Your task to perform on an android device: add a label to a message in the gmail app Image 0: 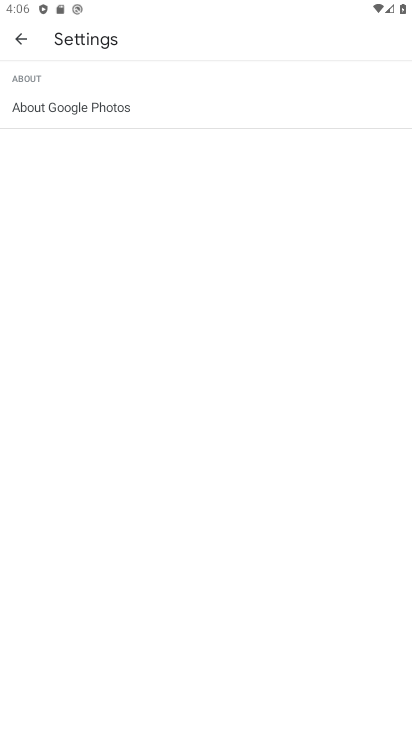
Step 0: press home button
Your task to perform on an android device: add a label to a message in the gmail app Image 1: 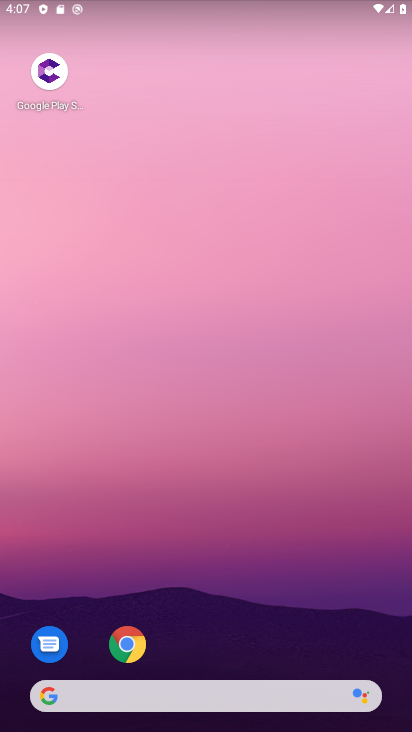
Step 1: drag from (245, 519) to (189, 96)
Your task to perform on an android device: add a label to a message in the gmail app Image 2: 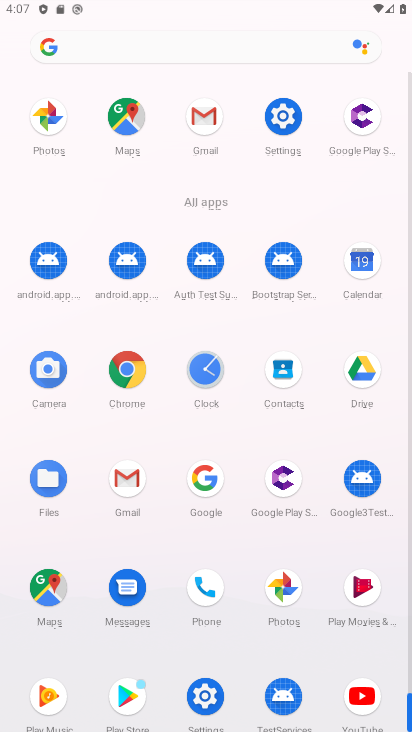
Step 2: click (130, 485)
Your task to perform on an android device: add a label to a message in the gmail app Image 3: 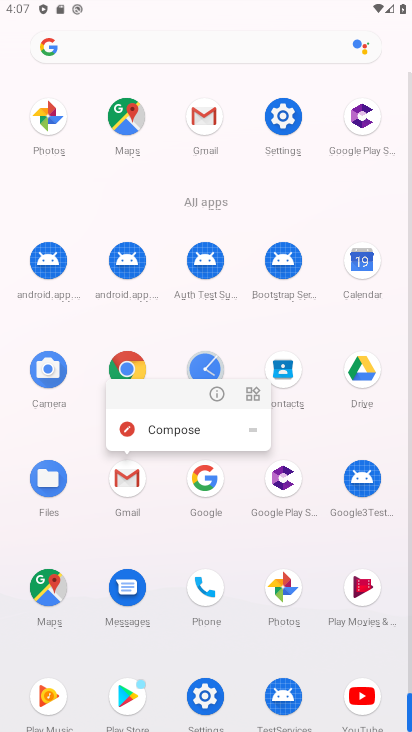
Step 3: click (130, 485)
Your task to perform on an android device: add a label to a message in the gmail app Image 4: 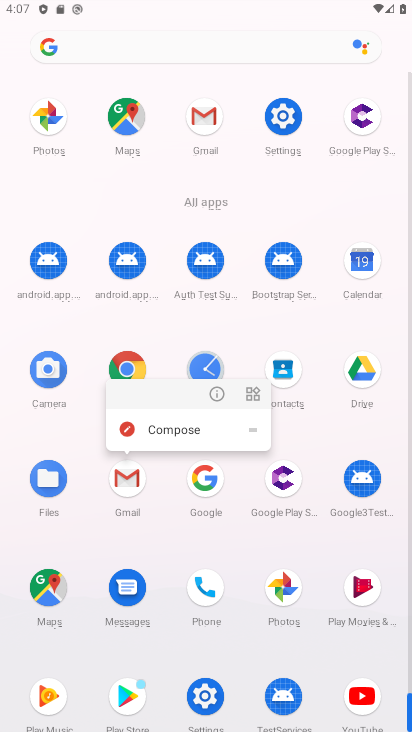
Step 4: click (130, 485)
Your task to perform on an android device: add a label to a message in the gmail app Image 5: 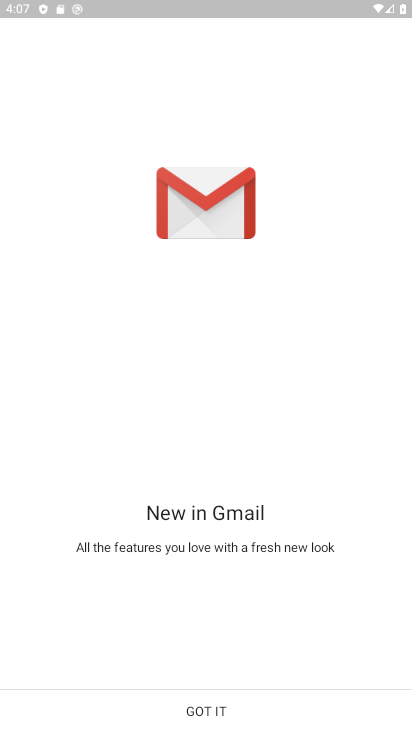
Step 5: click (186, 706)
Your task to perform on an android device: add a label to a message in the gmail app Image 6: 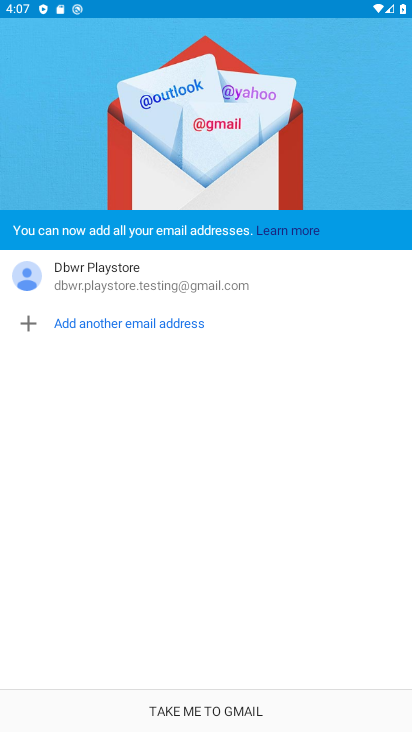
Step 6: click (99, 284)
Your task to perform on an android device: add a label to a message in the gmail app Image 7: 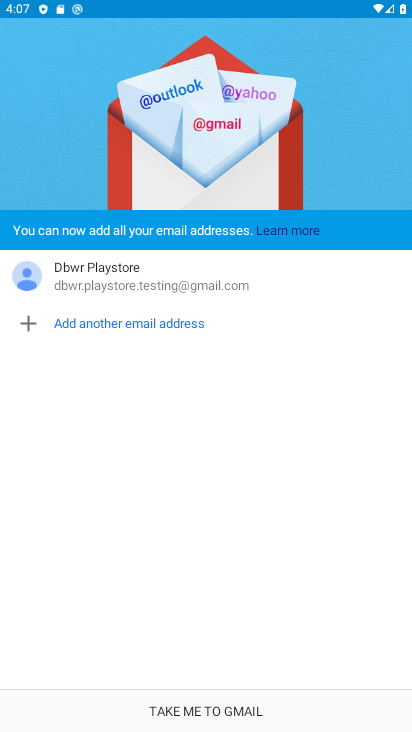
Step 7: click (225, 706)
Your task to perform on an android device: add a label to a message in the gmail app Image 8: 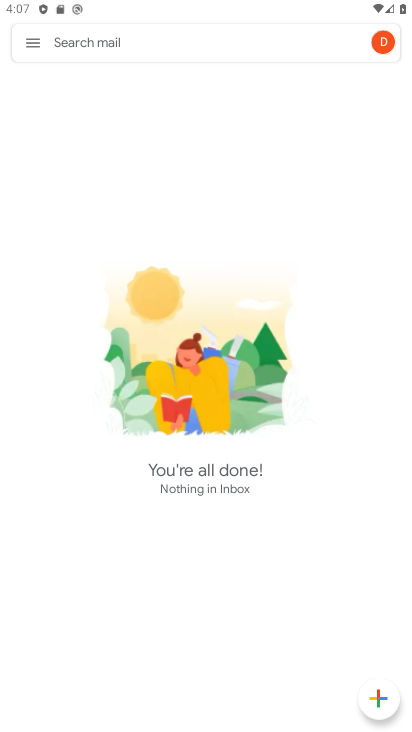
Step 8: click (29, 42)
Your task to perform on an android device: add a label to a message in the gmail app Image 9: 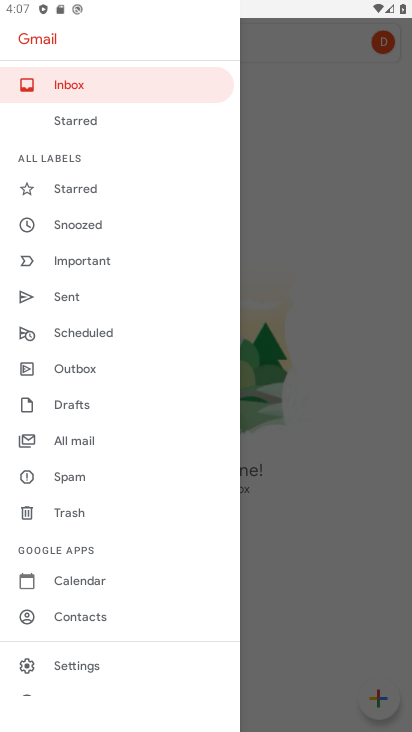
Step 9: click (91, 436)
Your task to perform on an android device: add a label to a message in the gmail app Image 10: 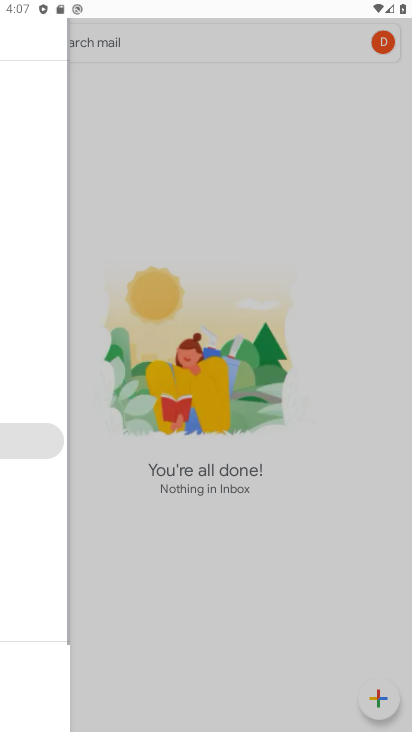
Step 10: click (91, 436)
Your task to perform on an android device: add a label to a message in the gmail app Image 11: 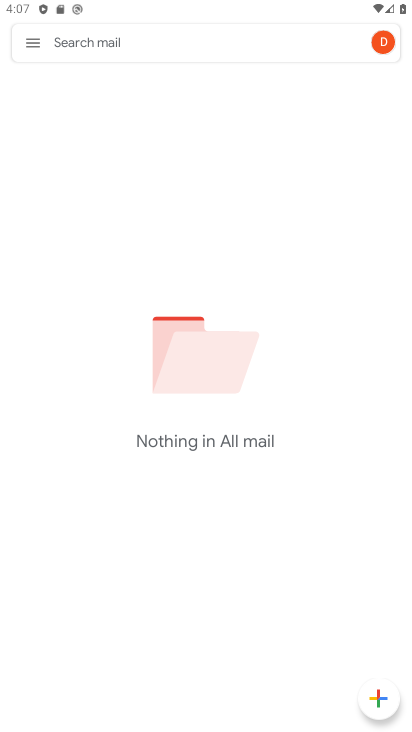
Step 11: task complete